Your task to perform on an android device: Is it going to rain tomorrow? Image 0: 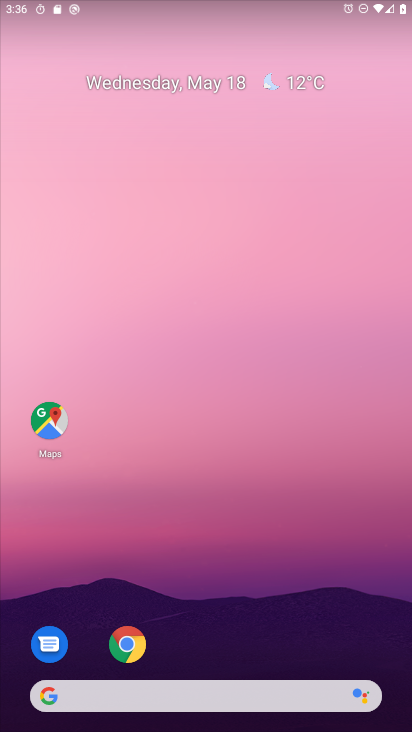
Step 0: click (303, 80)
Your task to perform on an android device: Is it going to rain tomorrow? Image 1: 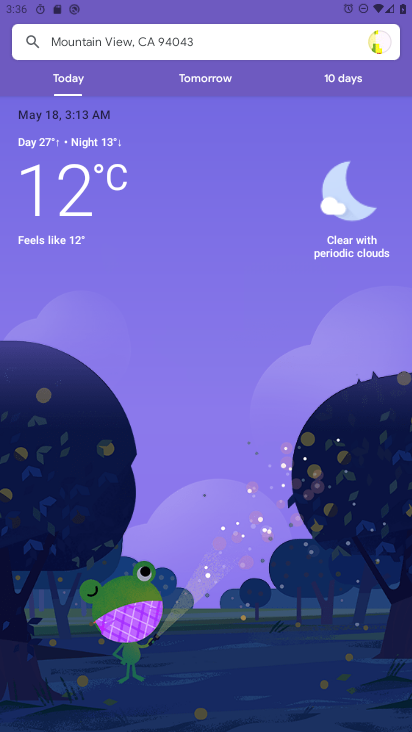
Step 1: task complete